Your task to perform on an android device: Open settings on Google Maps Image 0: 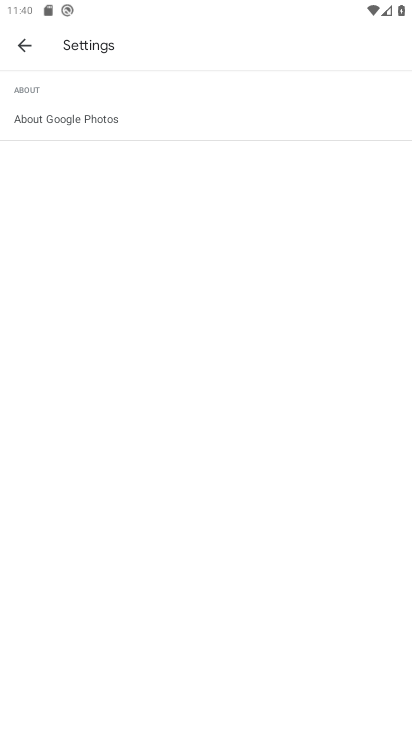
Step 0: press home button
Your task to perform on an android device: Open settings on Google Maps Image 1: 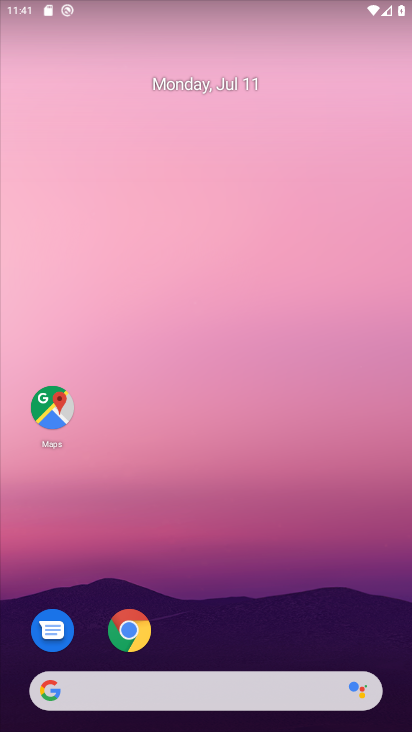
Step 1: click (52, 408)
Your task to perform on an android device: Open settings on Google Maps Image 2: 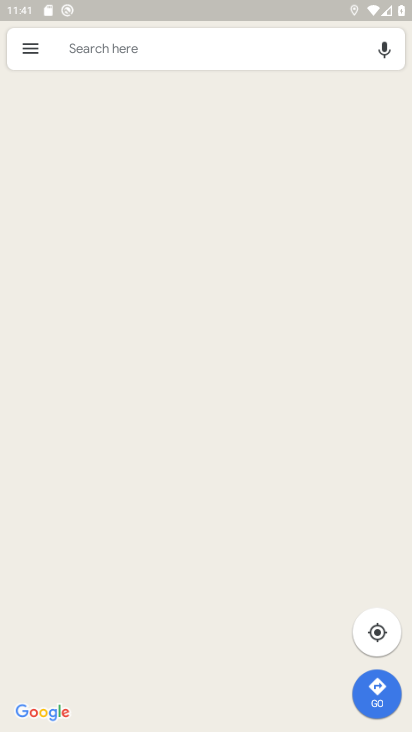
Step 2: click (32, 50)
Your task to perform on an android device: Open settings on Google Maps Image 3: 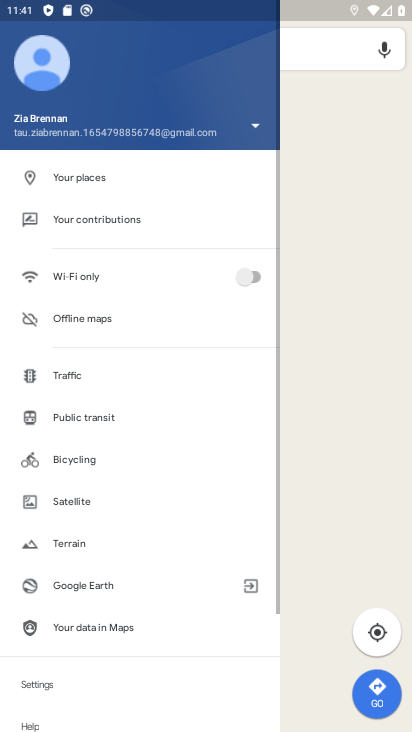
Step 3: drag from (100, 634) to (102, 398)
Your task to perform on an android device: Open settings on Google Maps Image 4: 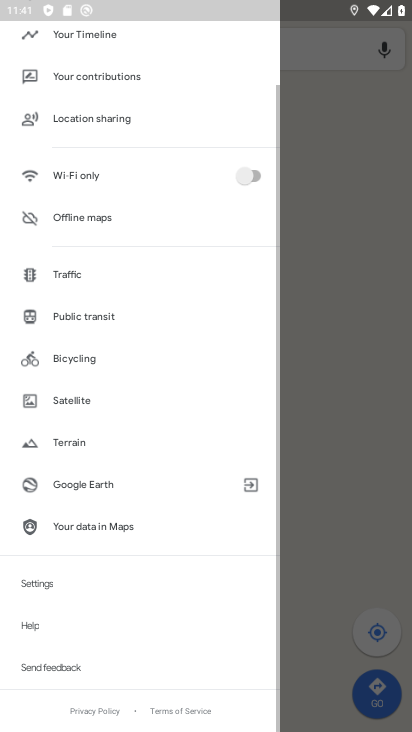
Step 4: click (38, 578)
Your task to perform on an android device: Open settings on Google Maps Image 5: 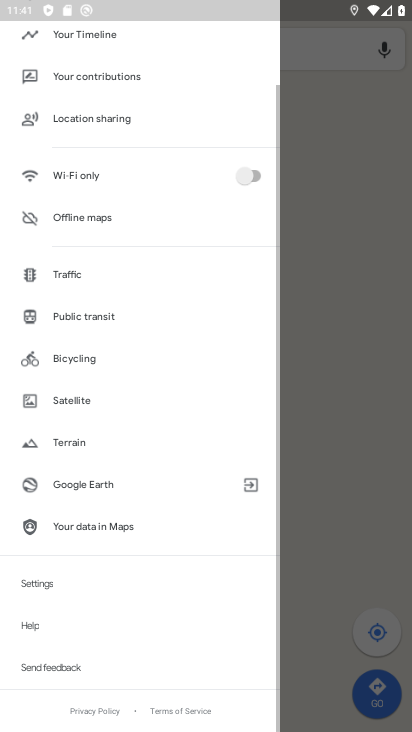
Step 5: click (39, 584)
Your task to perform on an android device: Open settings on Google Maps Image 6: 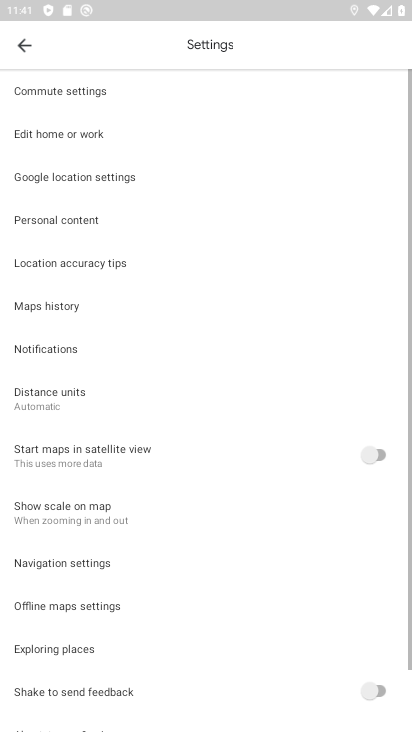
Step 6: task complete